Your task to perform on an android device: Open Yahoo.com Image 0: 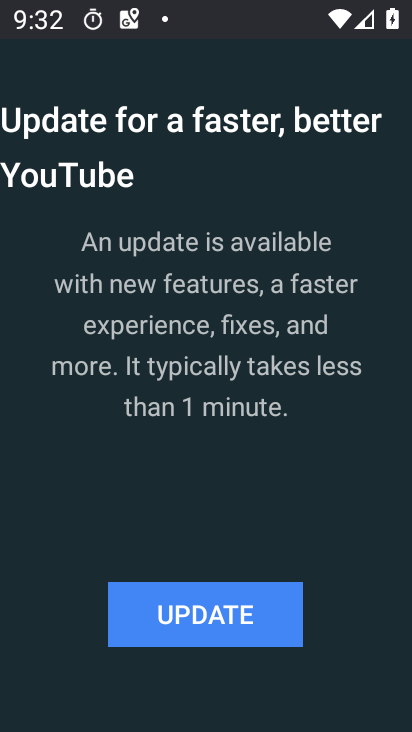
Step 0: press home button
Your task to perform on an android device: Open Yahoo.com Image 1: 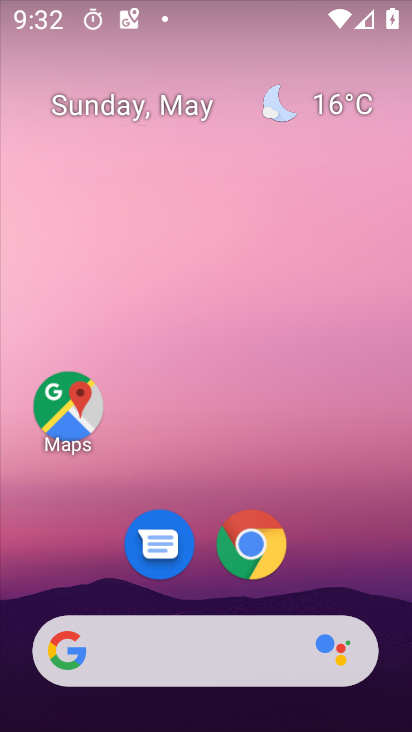
Step 1: click (256, 545)
Your task to perform on an android device: Open Yahoo.com Image 2: 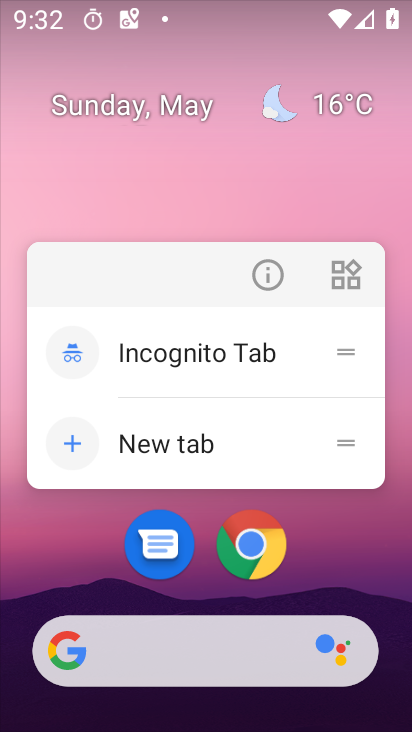
Step 2: click (234, 568)
Your task to perform on an android device: Open Yahoo.com Image 3: 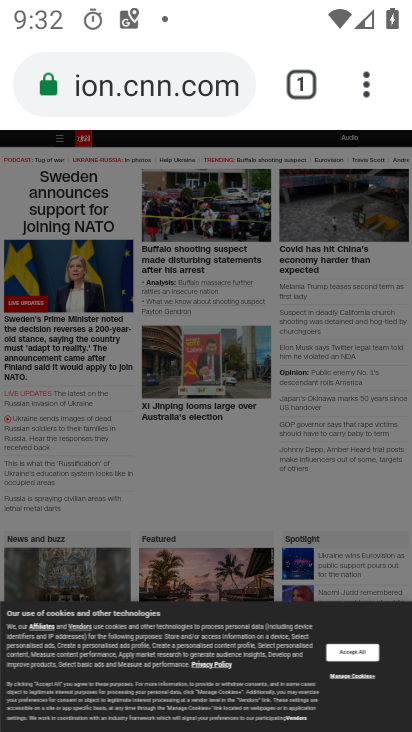
Step 3: press back button
Your task to perform on an android device: Open Yahoo.com Image 4: 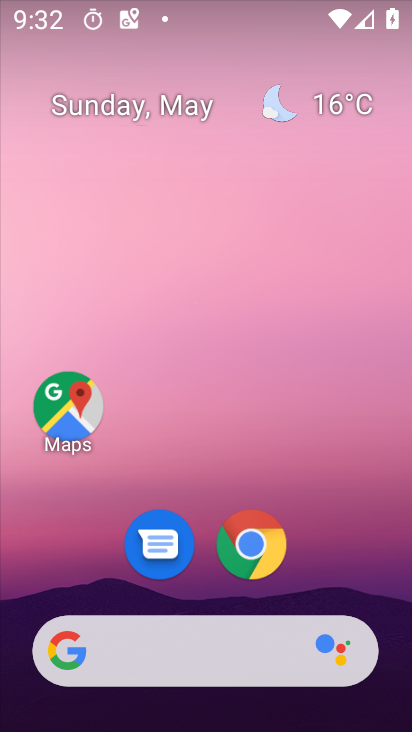
Step 4: click (239, 552)
Your task to perform on an android device: Open Yahoo.com Image 5: 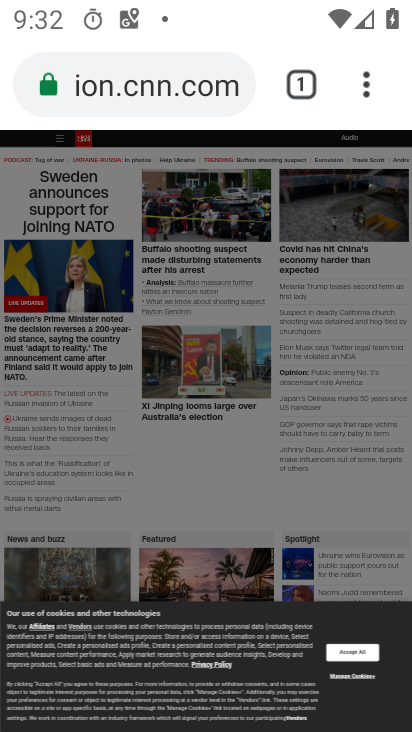
Step 5: press back button
Your task to perform on an android device: Open Yahoo.com Image 6: 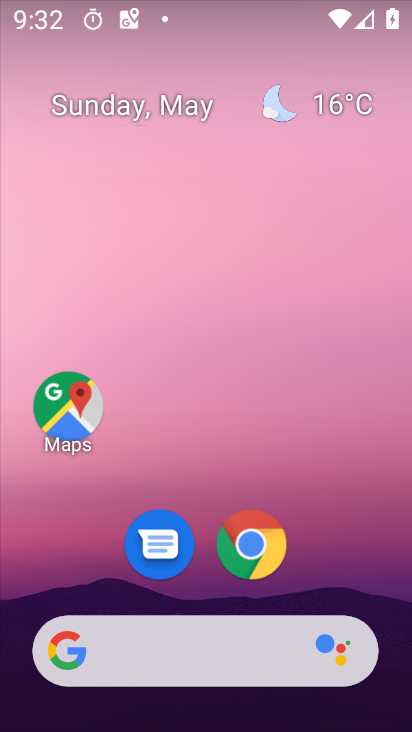
Step 6: click (255, 557)
Your task to perform on an android device: Open Yahoo.com Image 7: 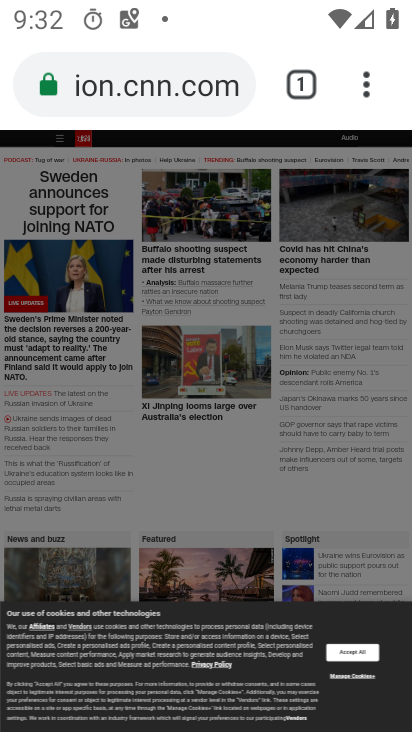
Step 7: click (192, 87)
Your task to perform on an android device: Open Yahoo.com Image 8: 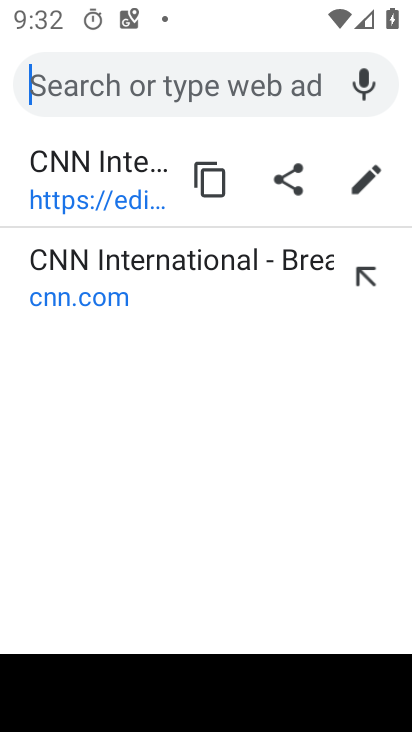
Step 8: type "www.yahoo.com"
Your task to perform on an android device: Open Yahoo.com Image 9: 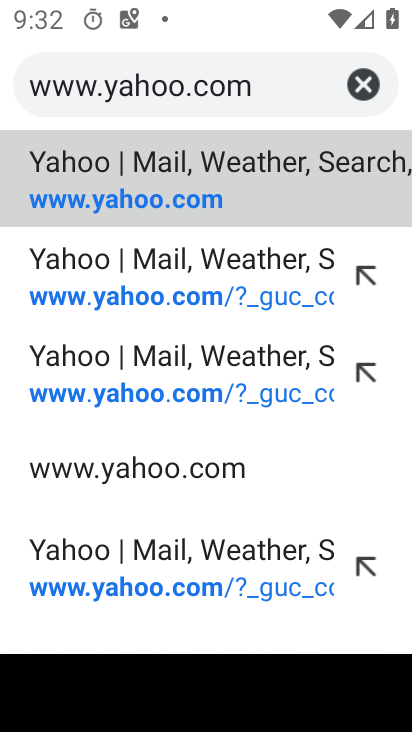
Step 9: click (77, 202)
Your task to perform on an android device: Open Yahoo.com Image 10: 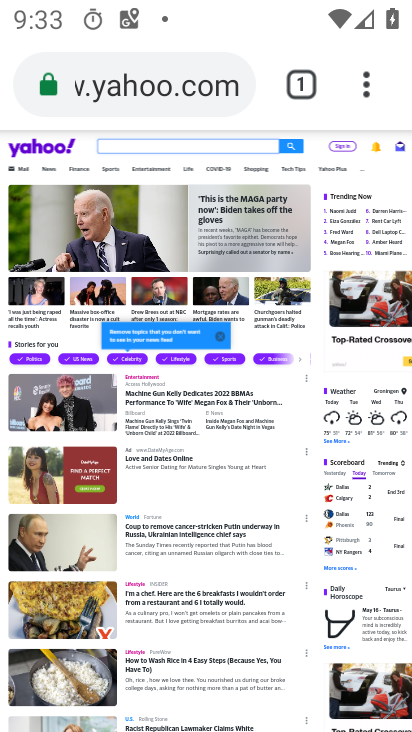
Step 10: task complete